Your task to perform on an android device: Open settings on Google Maps Image 0: 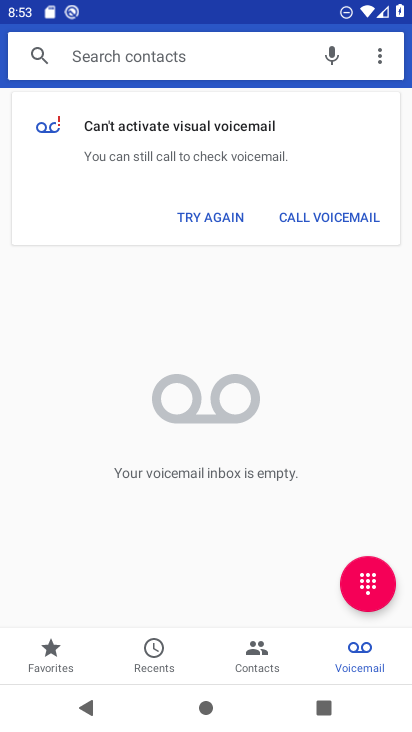
Step 0: press home button
Your task to perform on an android device: Open settings on Google Maps Image 1: 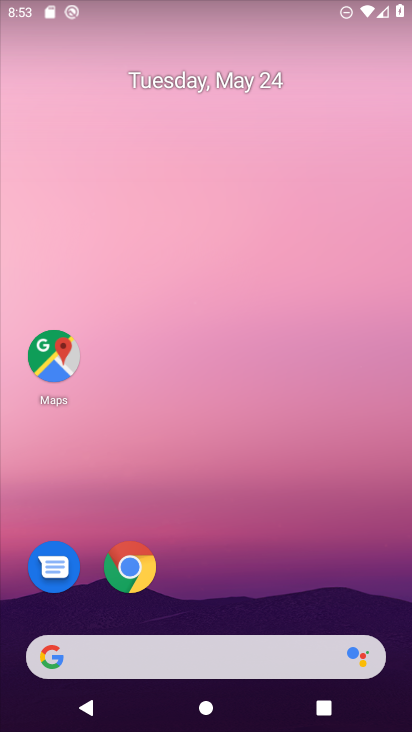
Step 1: click (42, 368)
Your task to perform on an android device: Open settings on Google Maps Image 2: 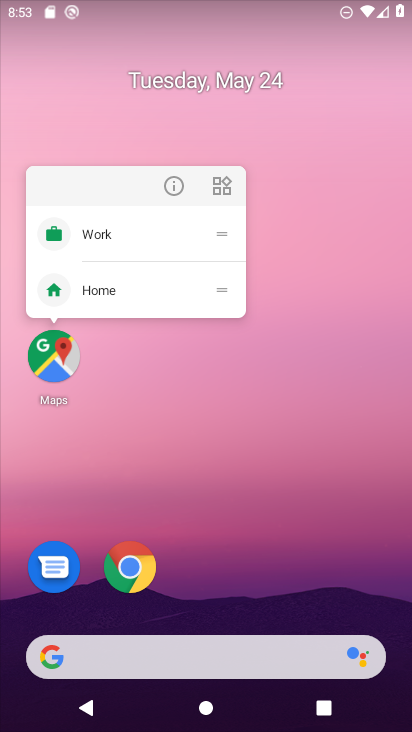
Step 2: click (46, 368)
Your task to perform on an android device: Open settings on Google Maps Image 3: 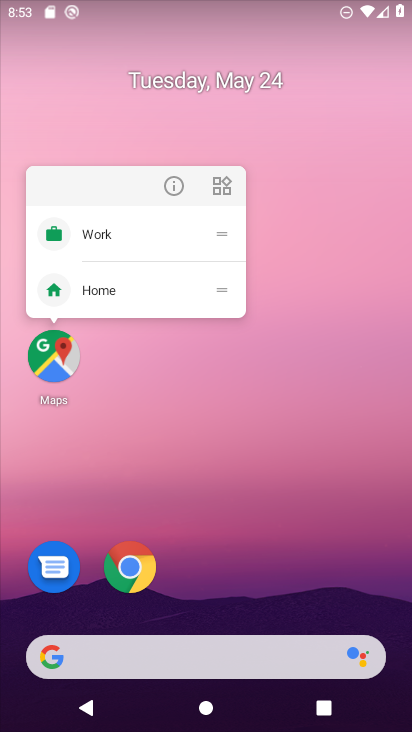
Step 3: click (57, 354)
Your task to perform on an android device: Open settings on Google Maps Image 4: 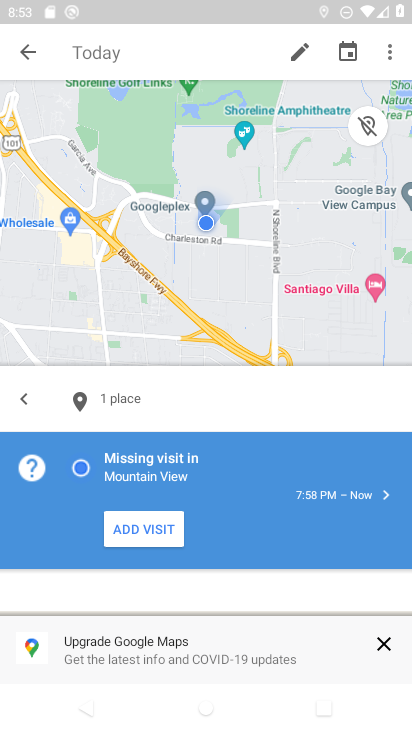
Step 4: click (29, 53)
Your task to perform on an android device: Open settings on Google Maps Image 5: 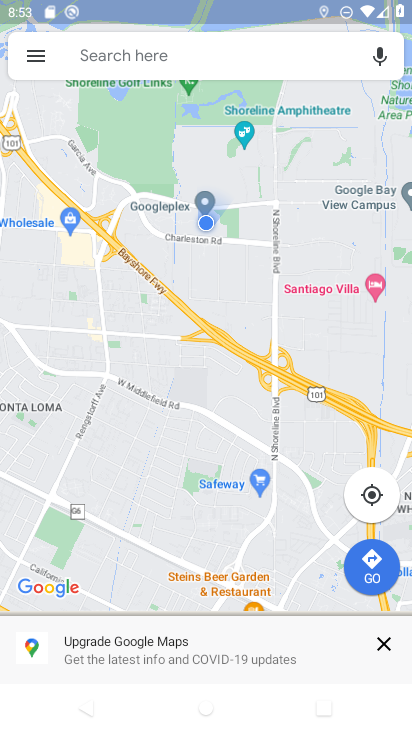
Step 5: click (29, 53)
Your task to perform on an android device: Open settings on Google Maps Image 6: 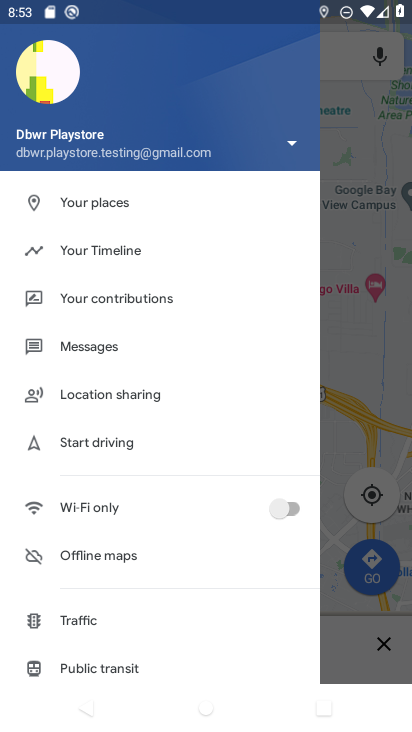
Step 6: drag from (125, 640) to (188, 103)
Your task to perform on an android device: Open settings on Google Maps Image 7: 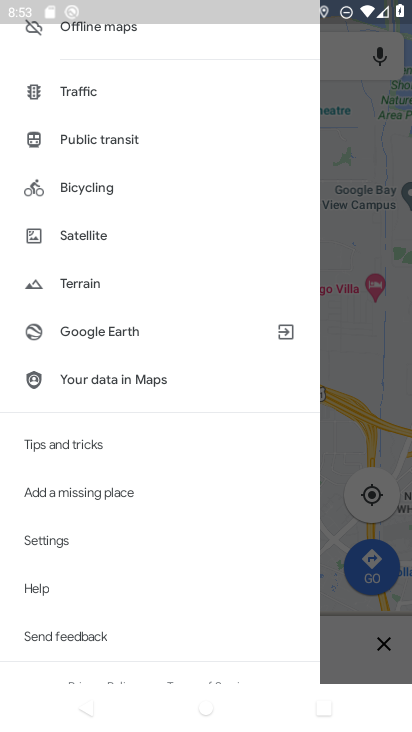
Step 7: click (65, 542)
Your task to perform on an android device: Open settings on Google Maps Image 8: 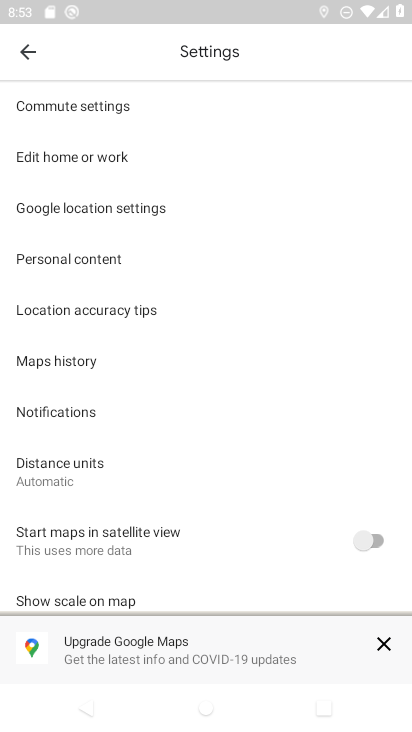
Step 8: task complete